Your task to perform on an android device: Go to Wikipedia Image 0: 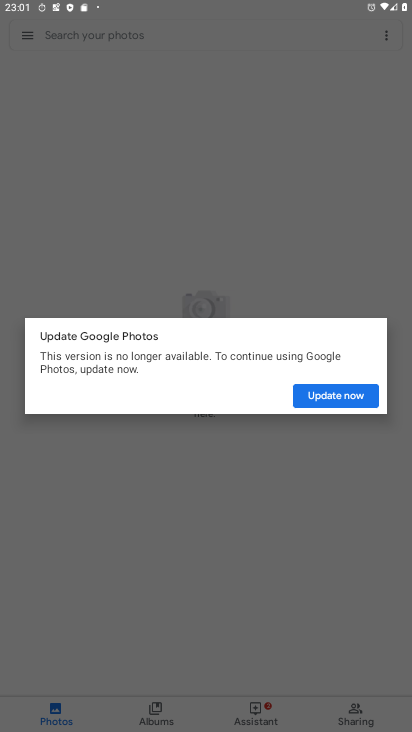
Step 0: press home button
Your task to perform on an android device: Go to Wikipedia Image 1: 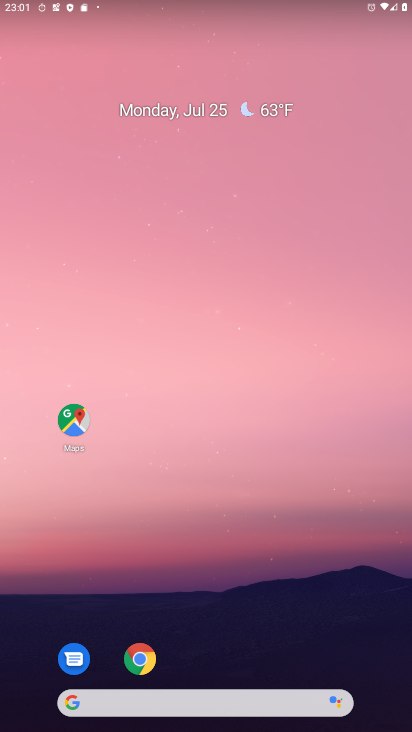
Step 1: click (138, 656)
Your task to perform on an android device: Go to Wikipedia Image 2: 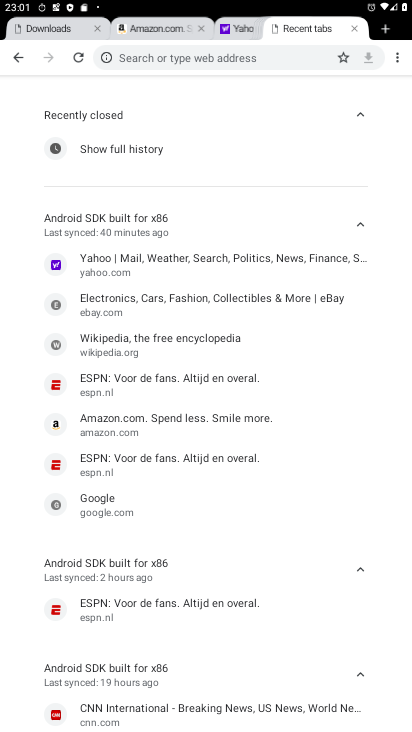
Step 2: click (396, 61)
Your task to perform on an android device: Go to Wikipedia Image 3: 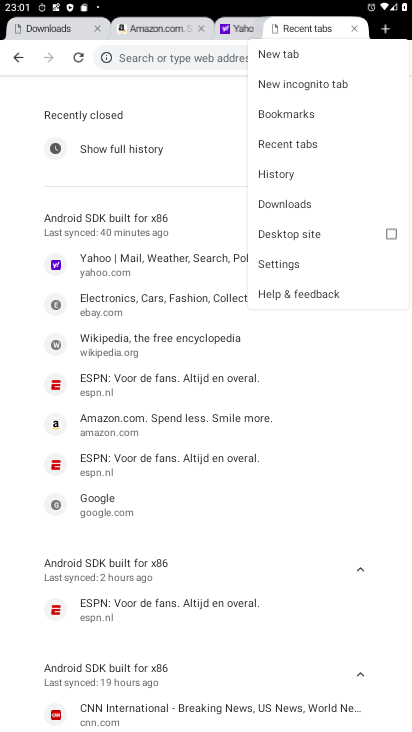
Step 3: click (287, 55)
Your task to perform on an android device: Go to Wikipedia Image 4: 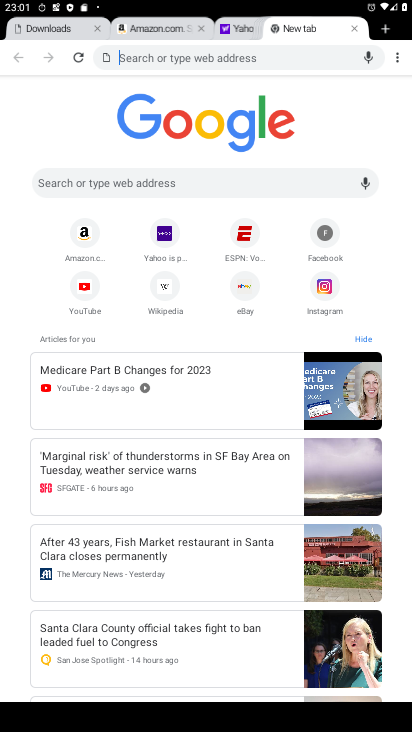
Step 4: click (159, 281)
Your task to perform on an android device: Go to Wikipedia Image 5: 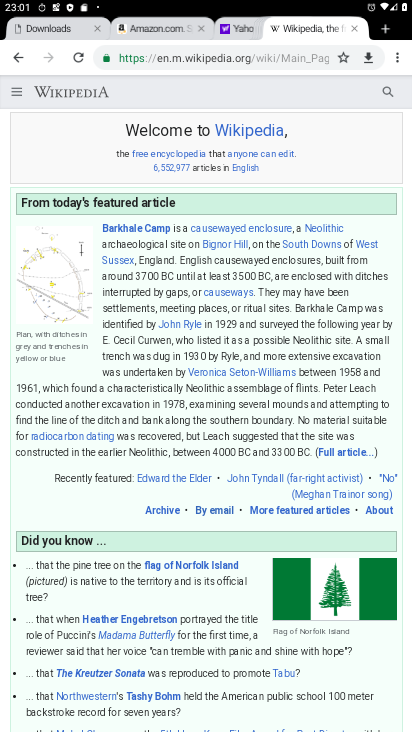
Step 5: task complete